Your task to perform on an android device: Go to CNN.com Image 0: 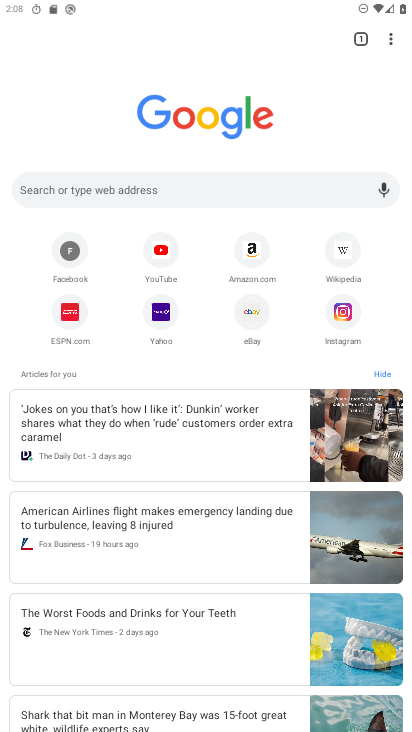
Step 0: click (177, 195)
Your task to perform on an android device: Go to CNN.com Image 1: 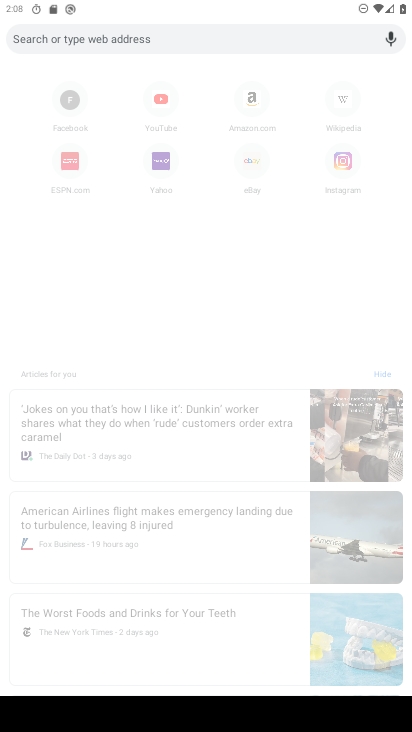
Step 1: type "CNN.com"
Your task to perform on an android device: Go to CNN.com Image 2: 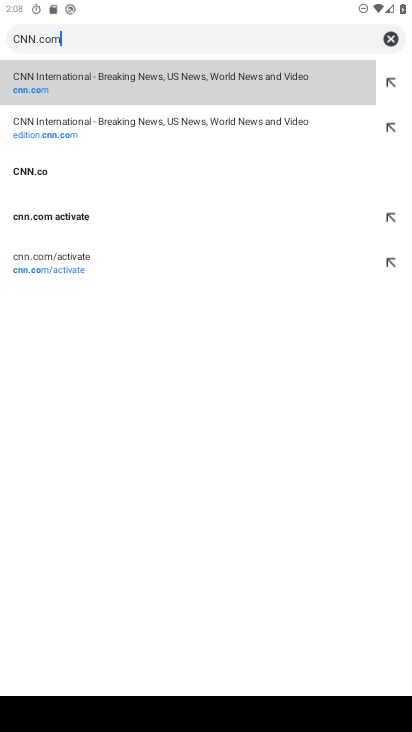
Step 2: type ""
Your task to perform on an android device: Go to CNN.com Image 3: 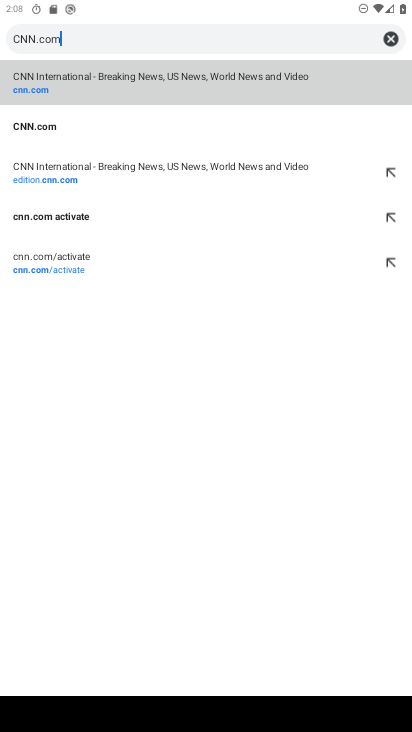
Step 3: click (105, 92)
Your task to perform on an android device: Go to CNN.com Image 4: 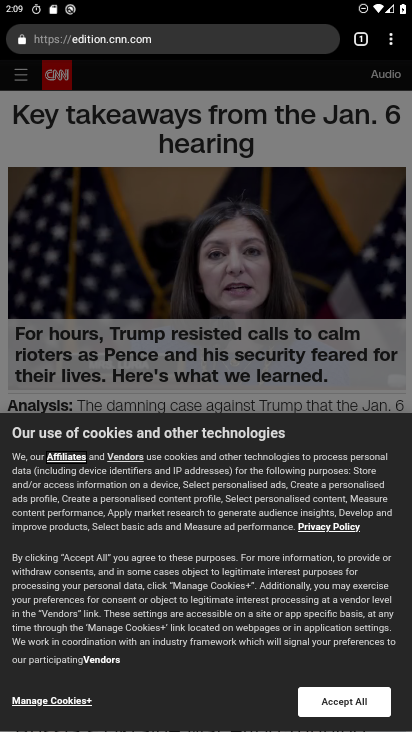
Step 4: task complete